Your task to perform on an android device: set default search engine in the chrome app Image 0: 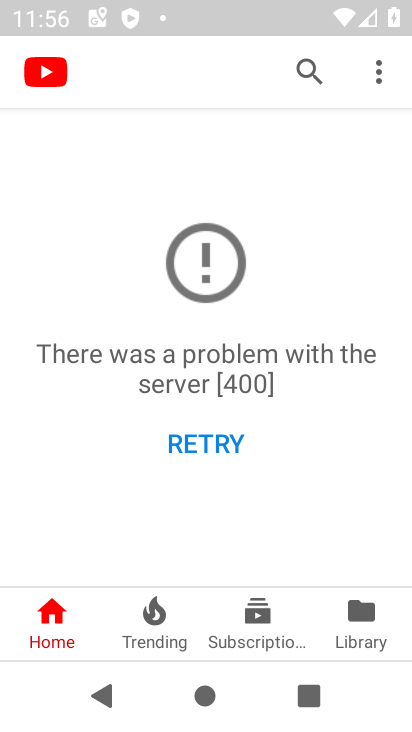
Step 0: press home button
Your task to perform on an android device: set default search engine in the chrome app Image 1: 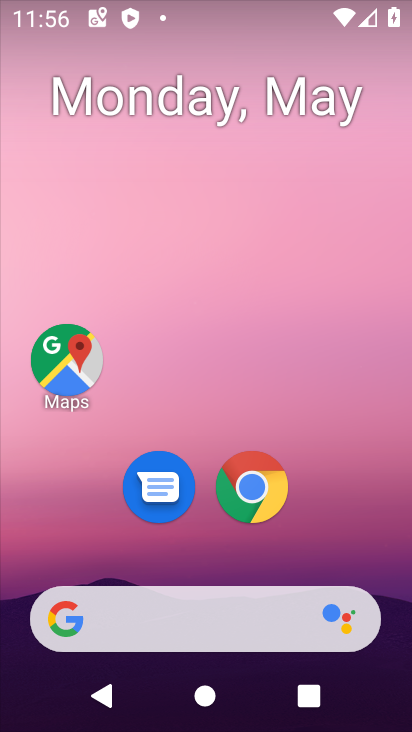
Step 1: drag from (381, 374) to (384, 155)
Your task to perform on an android device: set default search engine in the chrome app Image 2: 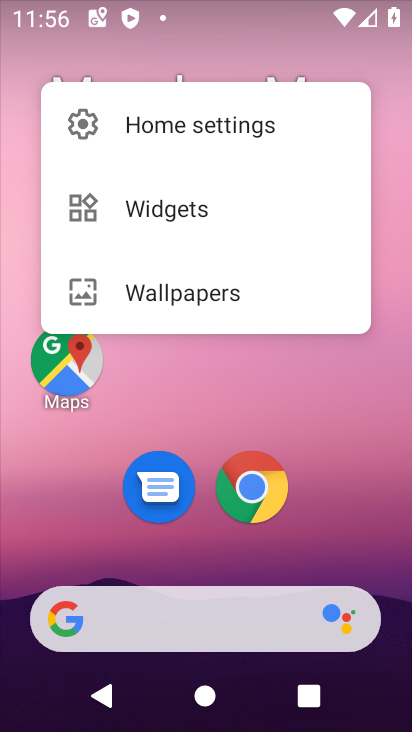
Step 2: click (381, 443)
Your task to perform on an android device: set default search engine in the chrome app Image 3: 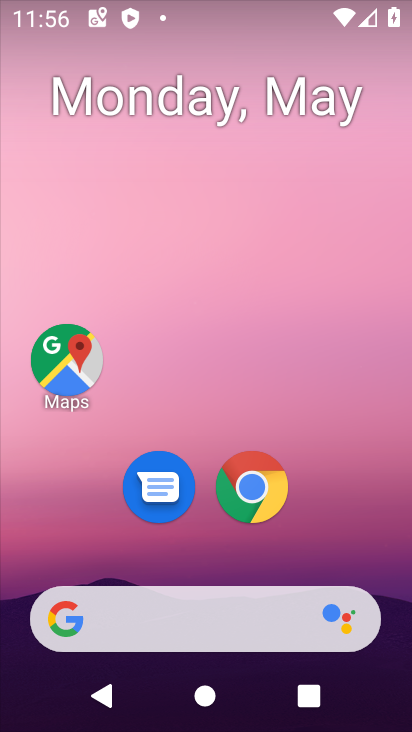
Step 3: drag from (371, 556) to (351, 258)
Your task to perform on an android device: set default search engine in the chrome app Image 4: 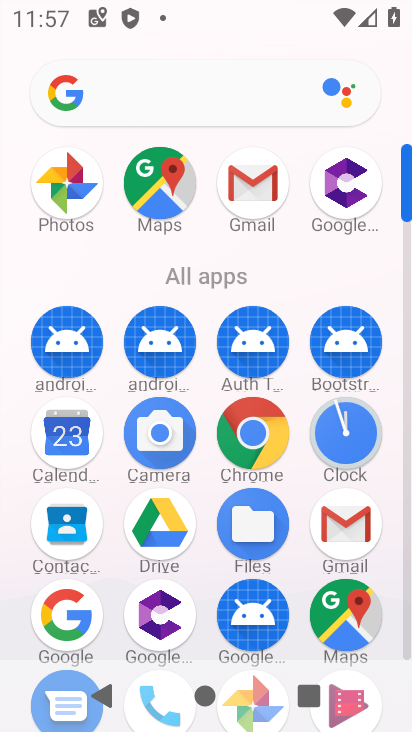
Step 4: click (257, 443)
Your task to perform on an android device: set default search engine in the chrome app Image 5: 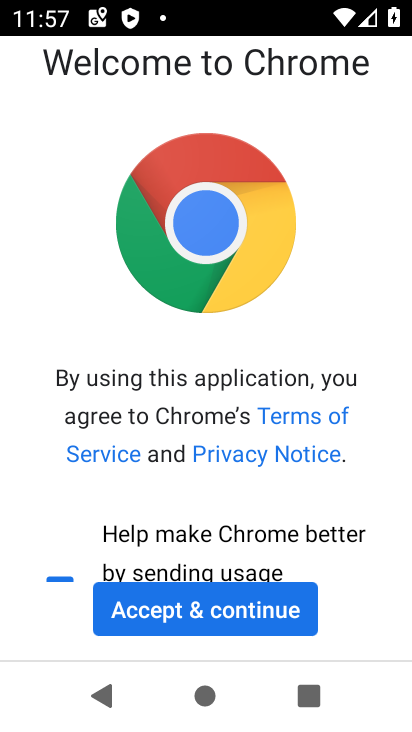
Step 5: click (275, 618)
Your task to perform on an android device: set default search engine in the chrome app Image 6: 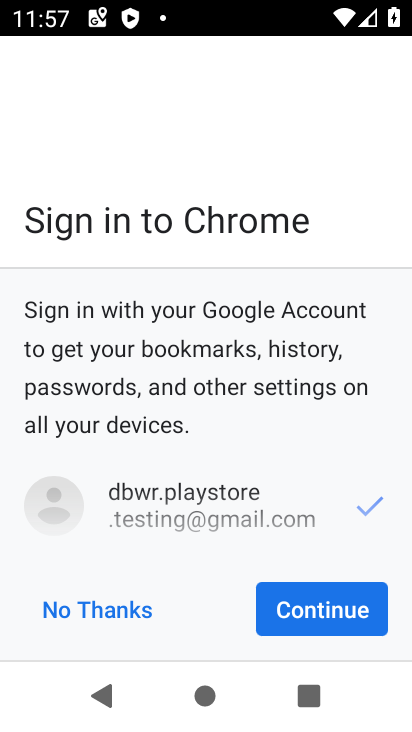
Step 6: click (317, 617)
Your task to perform on an android device: set default search engine in the chrome app Image 7: 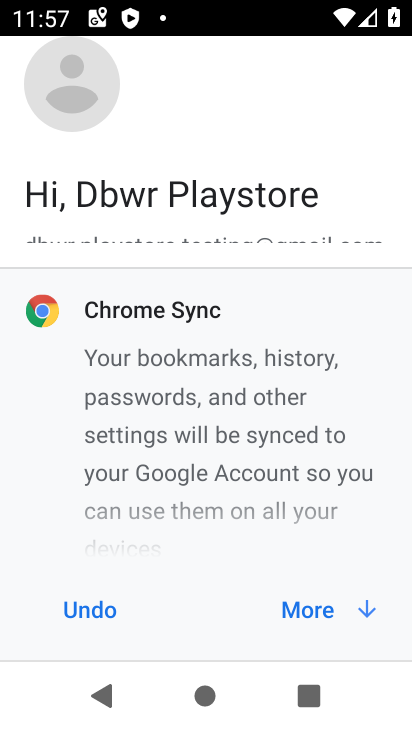
Step 7: click (317, 617)
Your task to perform on an android device: set default search engine in the chrome app Image 8: 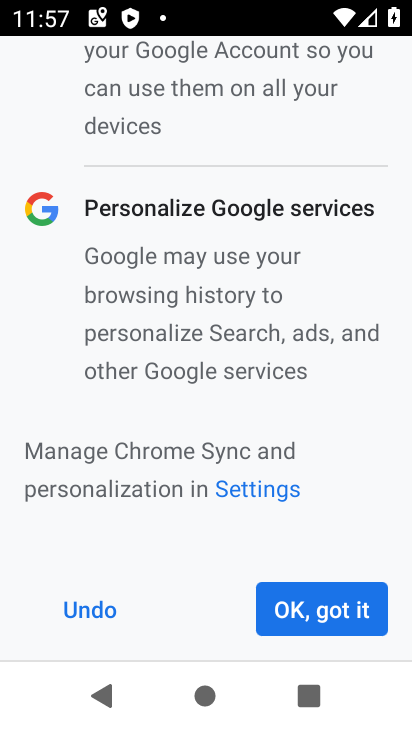
Step 8: click (317, 617)
Your task to perform on an android device: set default search engine in the chrome app Image 9: 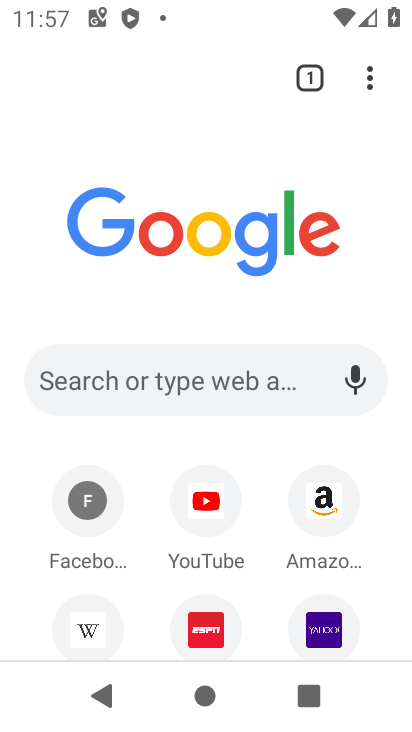
Step 9: click (371, 85)
Your task to perform on an android device: set default search engine in the chrome app Image 10: 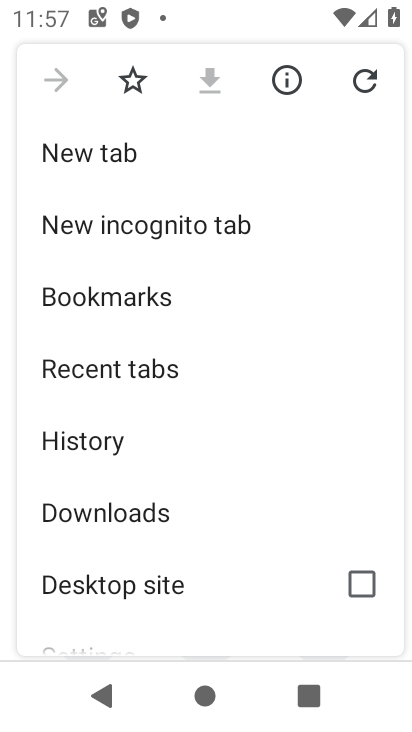
Step 10: drag from (296, 458) to (318, 323)
Your task to perform on an android device: set default search engine in the chrome app Image 11: 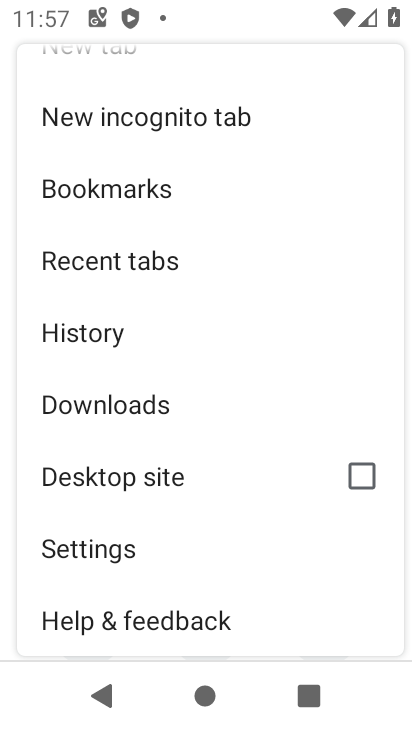
Step 11: drag from (282, 453) to (310, 332)
Your task to perform on an android device: set default search engine in the chrome app Image 12: 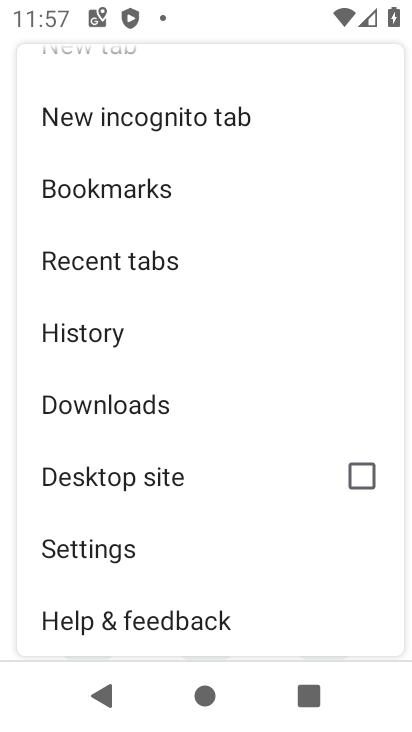
Step 12: click (177, 553)
Your task to perform on an android device: set default search engine in the chrome app Image 13: 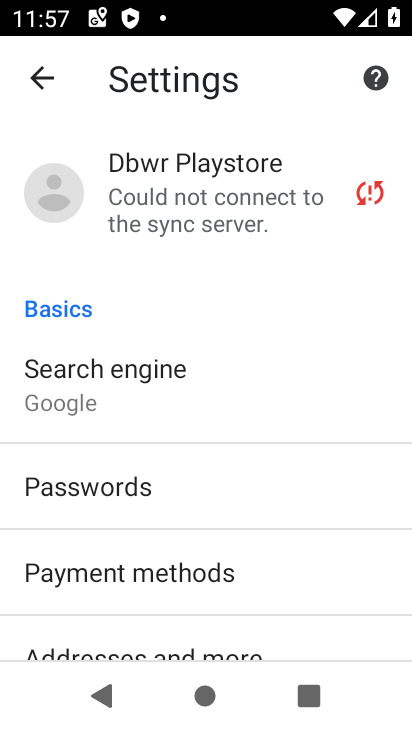
Step 13: click (159, 379)
Your task to perform on an android device: set default search engine in the chrome app Image 14: 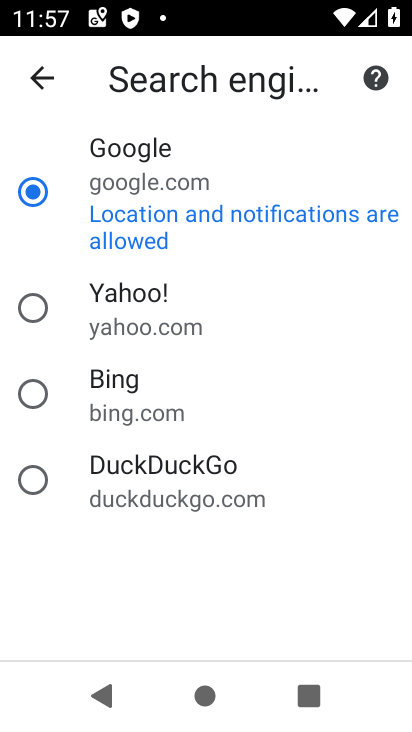
Step 14: click (160, 404)
Your task to perform on an android device: set default search engine in the chrome app Image 15: 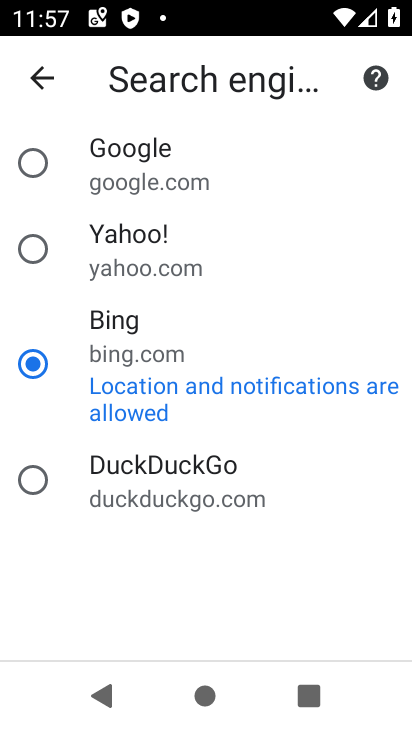
Step 15: task complete